Your task to perform on an android device: Go to battery settings Image 0: 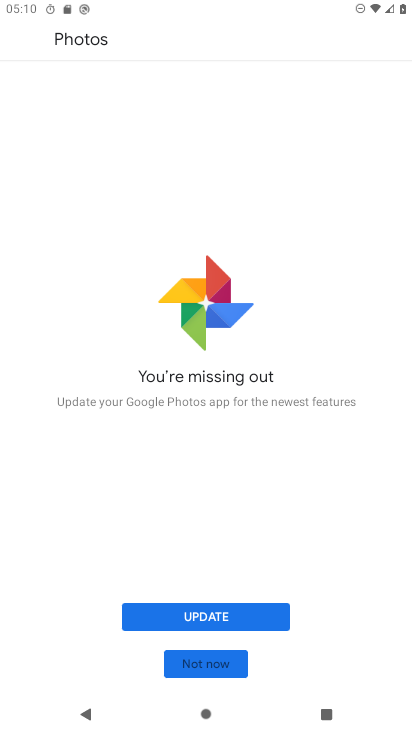
Step 0: press home button
Your task to perform on an android device: Go to battery settings Image 1: 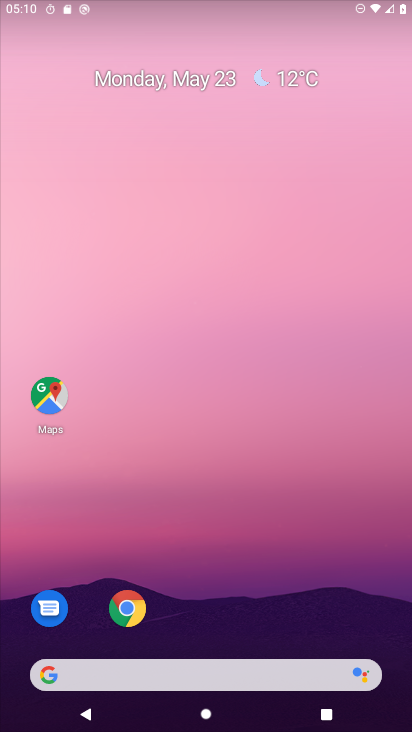
Step 1: drag from (325, 602) to (251, 0)
Your task to perform on an android device: Go to battery settings Image 2: 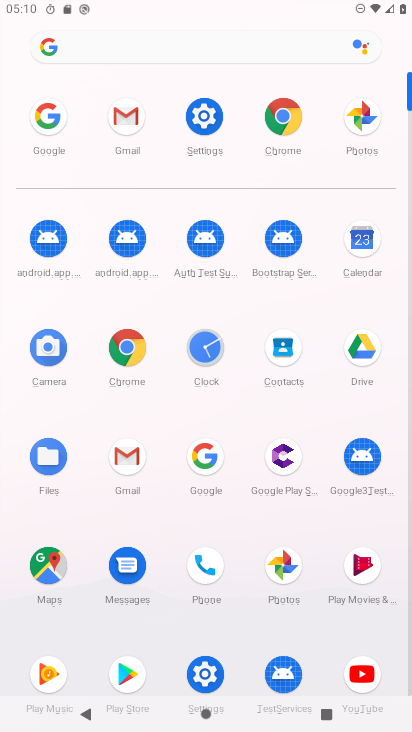
Step 2: click (205, 113)
Your task to perform on an android device: Go to battery settings Image 3: 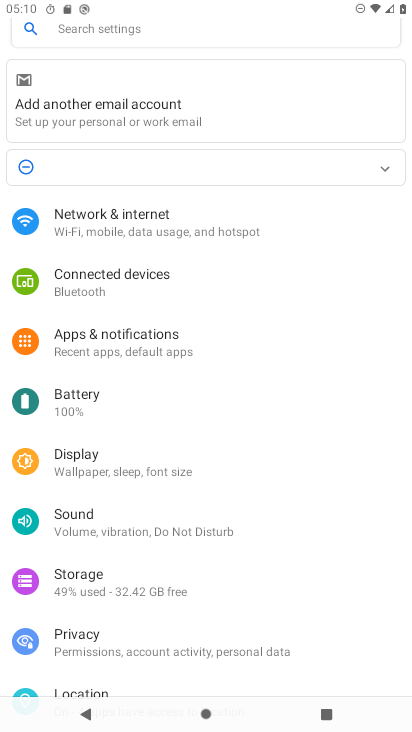
Step 3: click (149, 392)
Your task to perform on an android device: Go to battery settings Image 4: 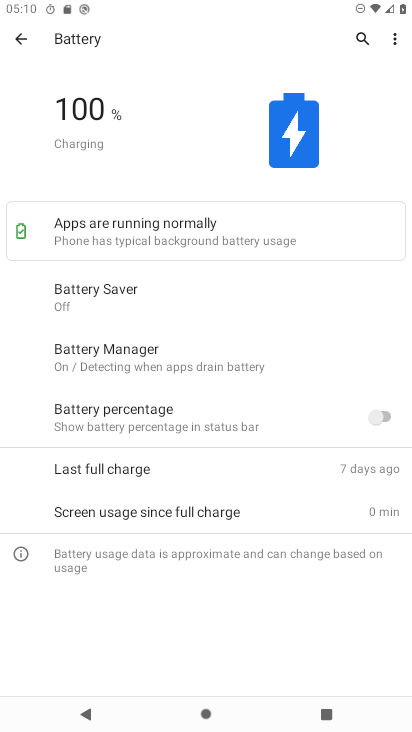
Step 4: task complete